Your task to perform on an android device: What's on my calendar tomorrow? Image 0: 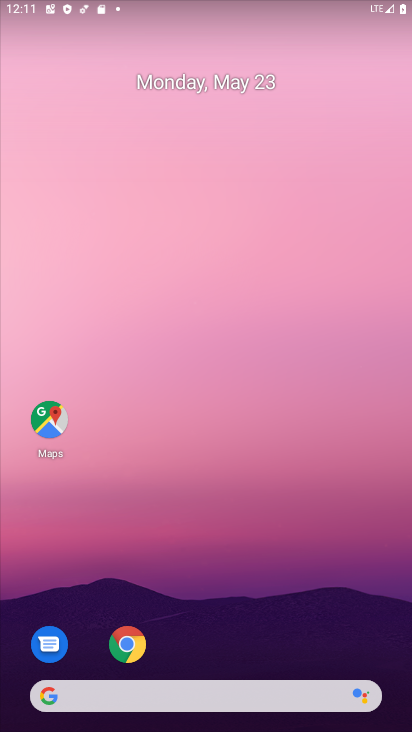
Step 0: press home button
Your task to perform on an android device: What's on my calendar tomorrow? Image 1: 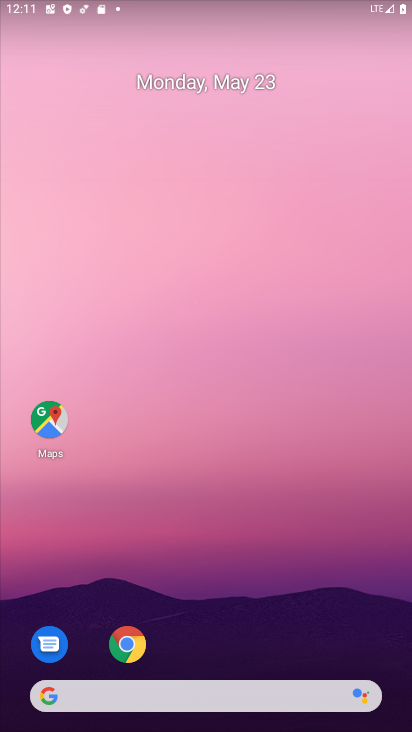
Step 1: drag from (358, 632) to (179, 40)
Your task to perform on an android device: What's on my calendar tomorrow? Image 2: 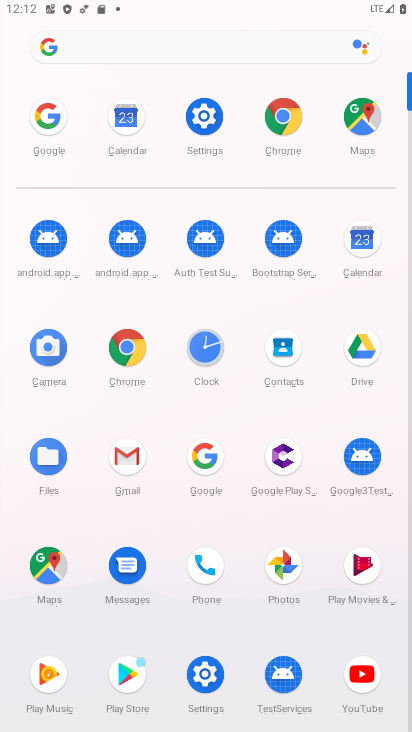
Step 2: click (365, 254)
Your task to perform on an android device: What's on my calendar tomorrow? Image 3: 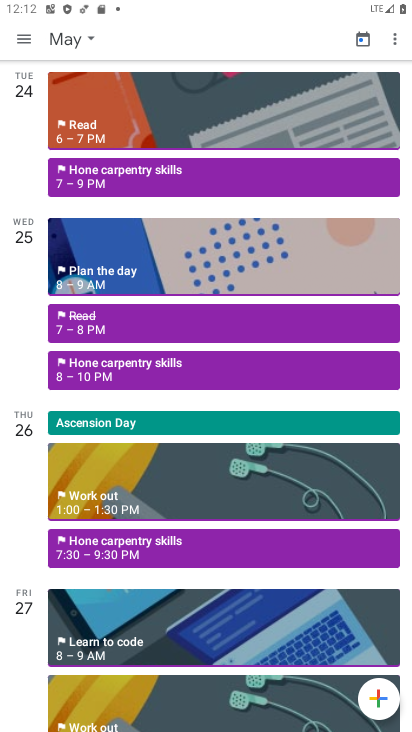
Step 3: click (52, 43)
Your task to perform on an android device: What's on my calendar tomorrow? Image 4: 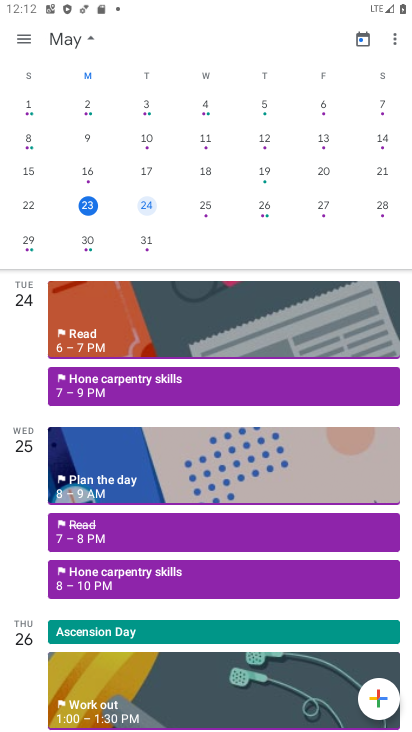
Step 4: click (148, 205)
Your task to perform on an android device: What's on my calendar tomorrow? Image 5: 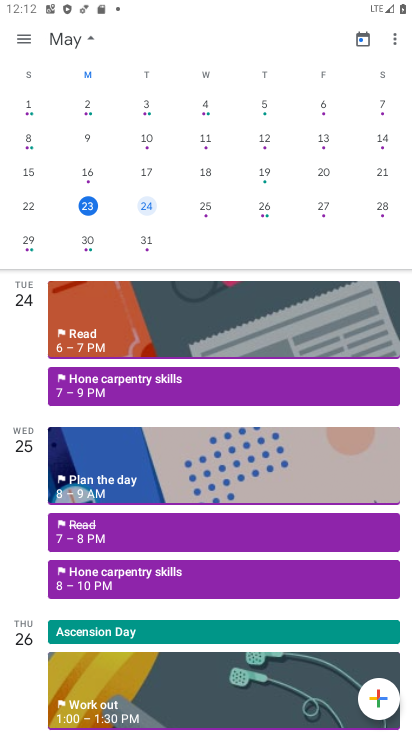
Step 5: click (148, 204)
Your task to perform on an android device: What's on my calendar tomorrow? Image 6: 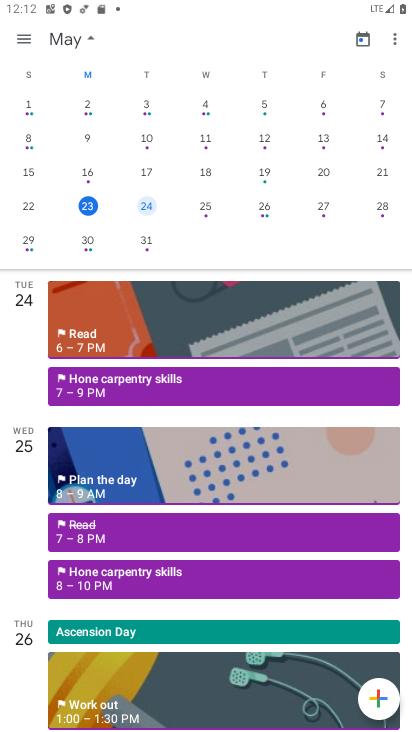
Step 6: click (241, 384)
Your task to perform on an android device: What's on my calendar tomorrow? Image 7: 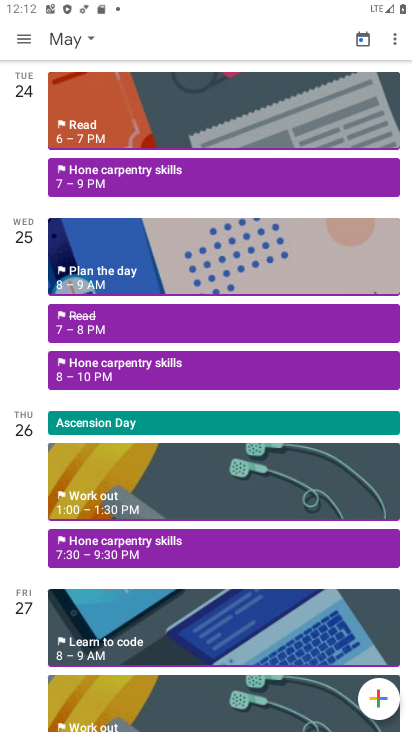
Step 7: click (198, 83)
Your task to perform on an android device: What's on my calendar tomorrow? Image 8: 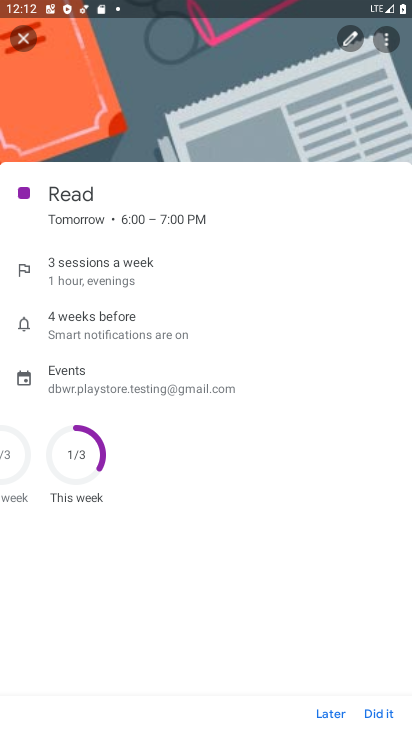
Step 8: task complete